Your task to perform on an android device: Go to battery settings Image 0: 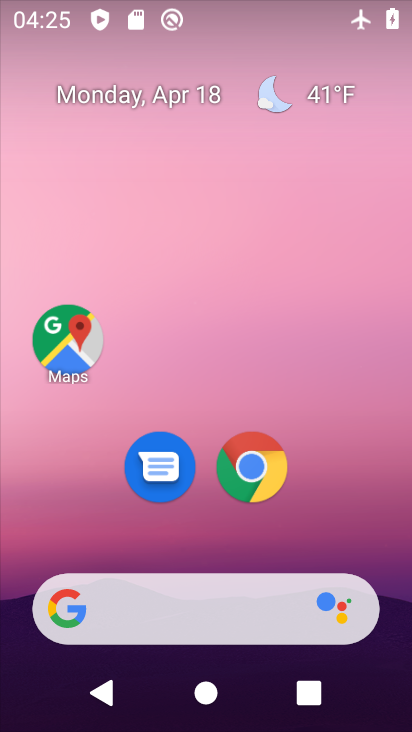
Step 0: drag from (185, 528) to (245, 65)
Your task to perform on an android device: Go to battery settings Image 1: 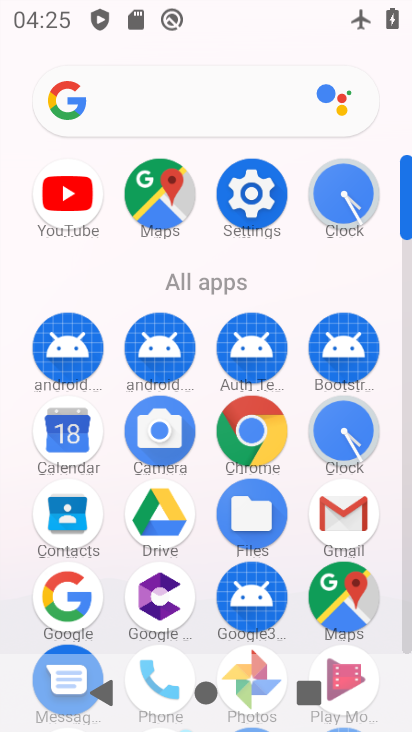
Step 1: click (251, 200)
Your task to perform on an android device: Go to battery settings Image 2: 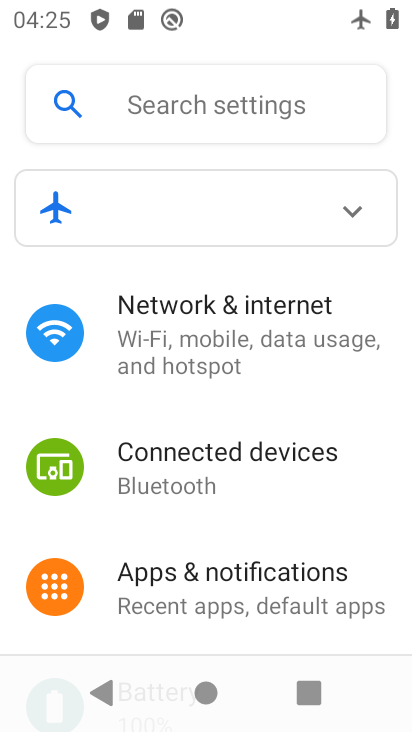
Step 2: drag from (232, 518) to (234, 277)
Your task to perform on an android device: Go to battery settings Image 3: 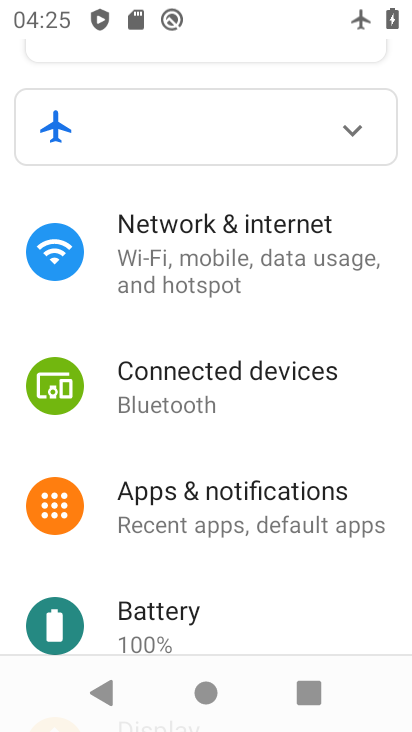
Step 3: drag from (254, 590) to (252, 414)
Your task to perform on an android device: Go to battery settings Image 4: 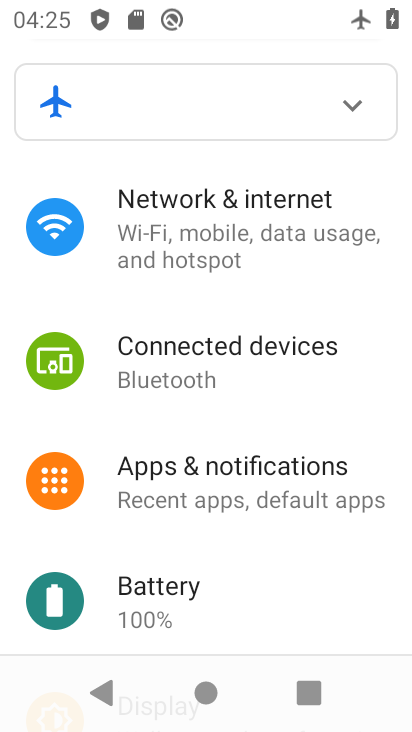
Step 4: click (212, 580)
Your task to perform on an android device: Go to battery settings Image 5: 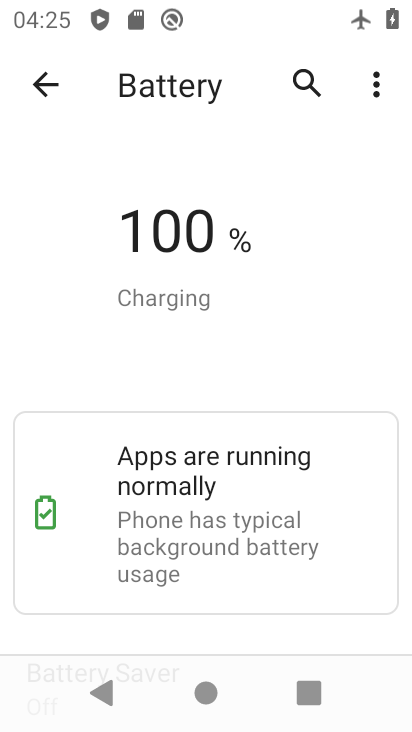
Step 5: click (372, 85)
Your task to perform on an android device: Go to battery settings Image 6: 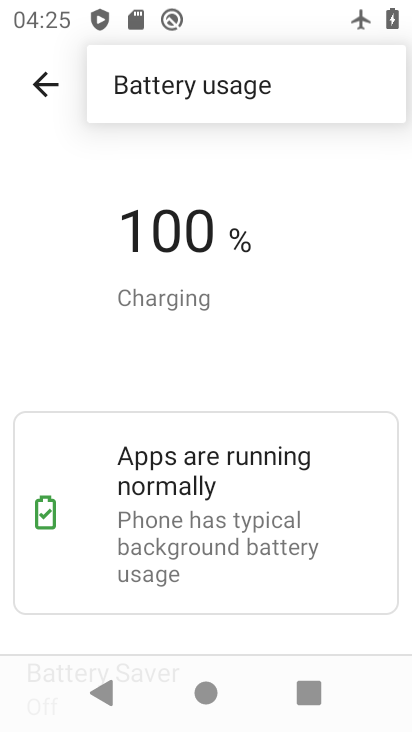
Step 6: click (249, 401)
Your task to perform on an android device: Go to battery settings Image 7: 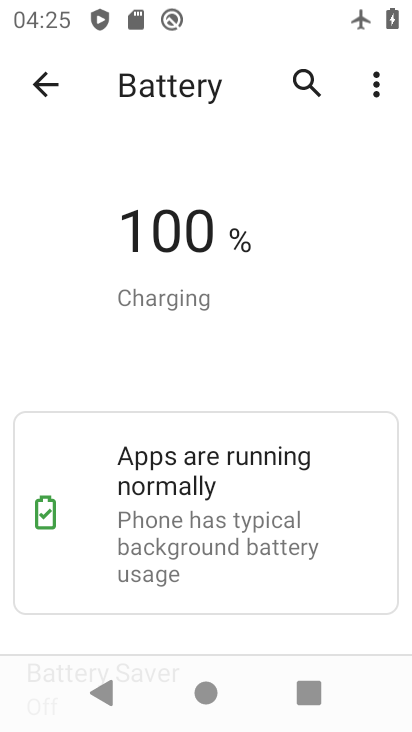
Step 7: drag from (263, 530) to (265, 206)
Your task to perform on an android device: Go to battery settings Image 8: 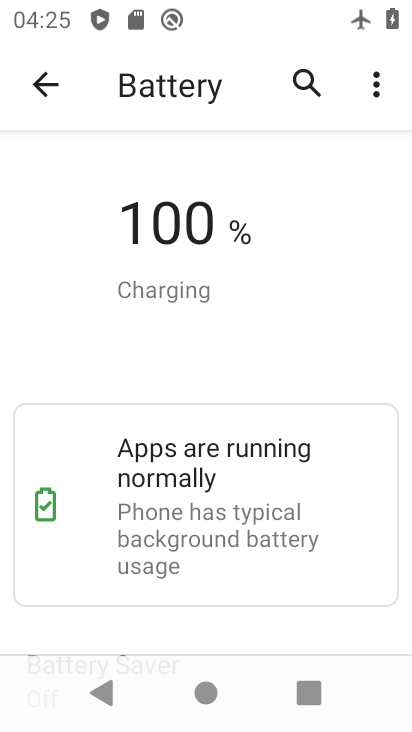
Step 8: drag from (241, 448) to (255, 162)
Your task to perform on an android device: Go to battery settings Image 9: 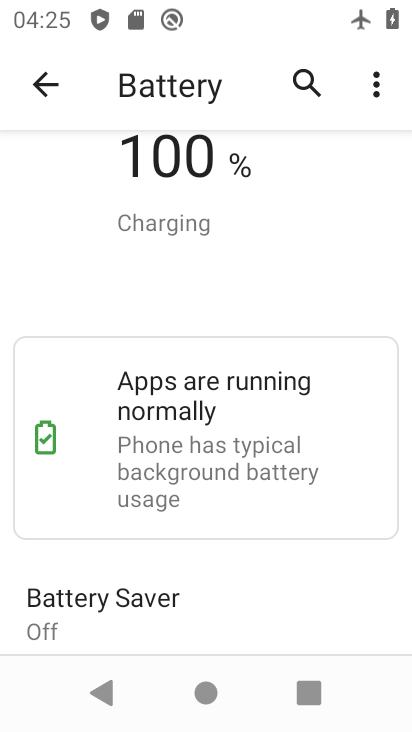
Step 9: drag from (247, 522) to (262, 202)
Your task to perform on an android device: Go to battery settings Image 10: 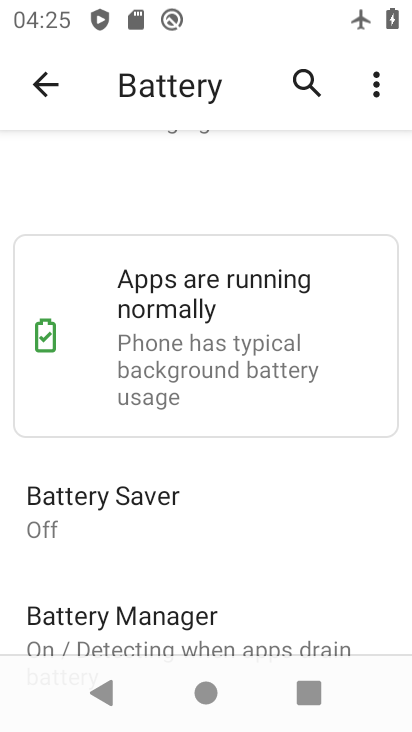
Step 10: drag from (285, 426) to (284, 115)
Your task to perform on an android device: Go to battery settings Image 11: 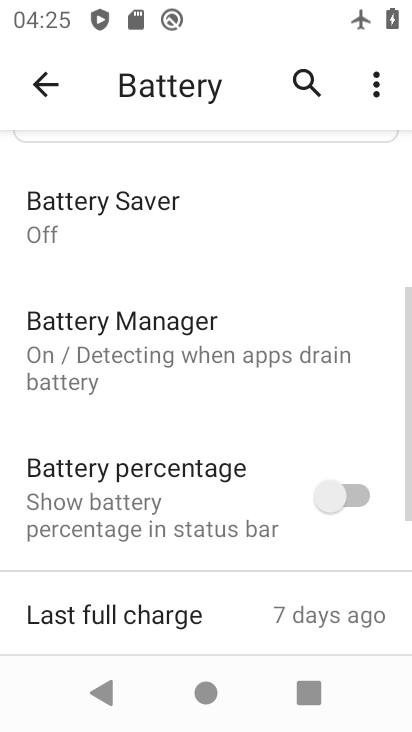
Step 11: click (312, 193)
Your task to perform on an android device: Go to battery settings Image 12: 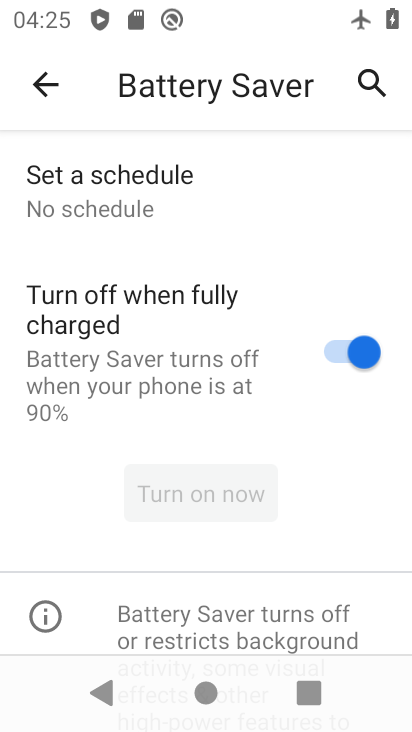
Step 12: click (58, 74)
Your task to perform on an android device: Go to battery settings Image 13: 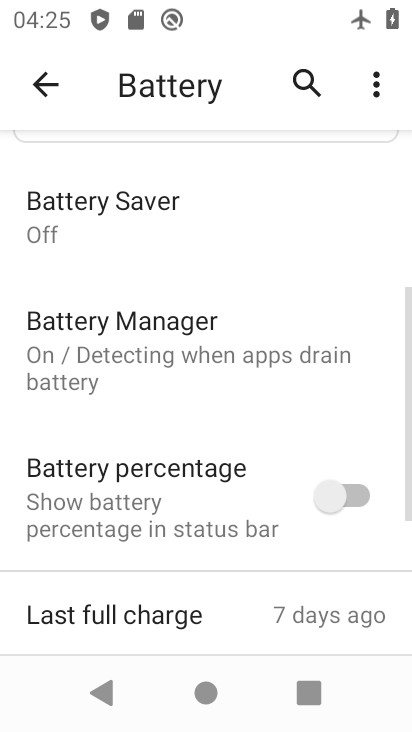
Step 13: task complete